Your task to perform on an android device: turn notification dots off Image 0: 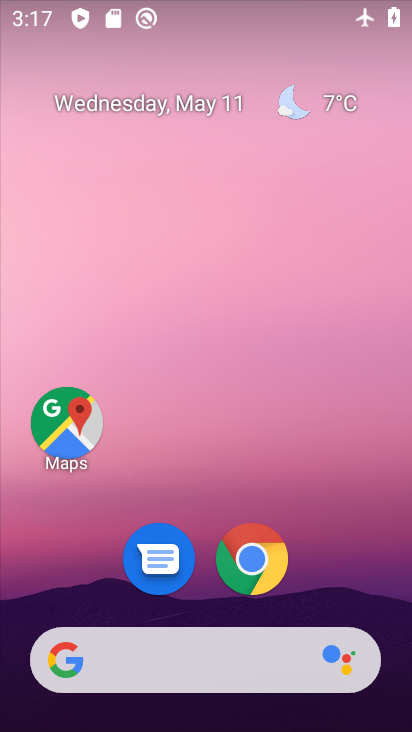
Step 0: drag from (196, 627) to (196, 151)
Your task to perform on an android device: turn notification dots off Image 1: 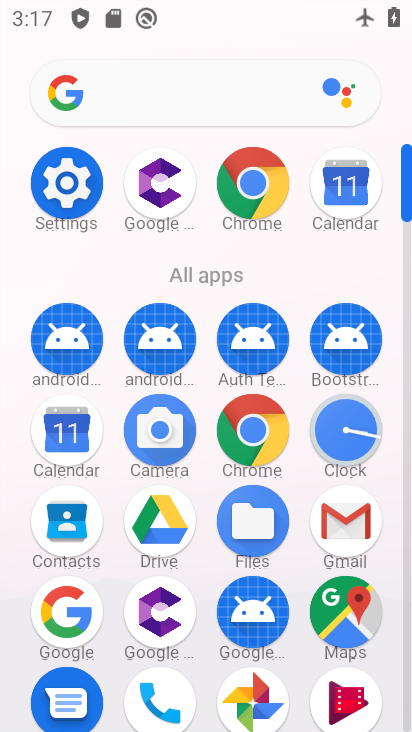
Step 1: click (83, 180)
Your task to perform on an android device: turn notification dots off Image 2: 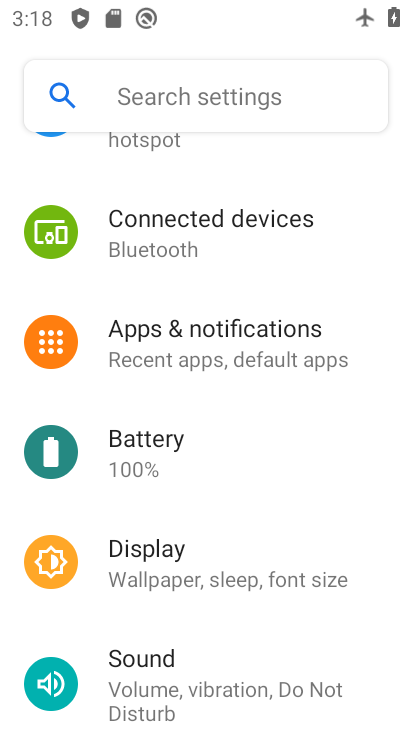
Step 2: click (157, 339)
Your task to perform on an android device: turn notification dots off Image 3: 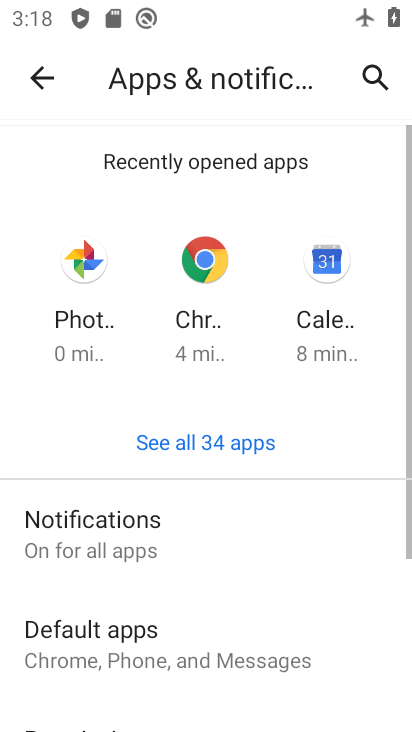
Step 3: click (119, 541)
Your task to perform on an android device: turn notification dots off Image 4: 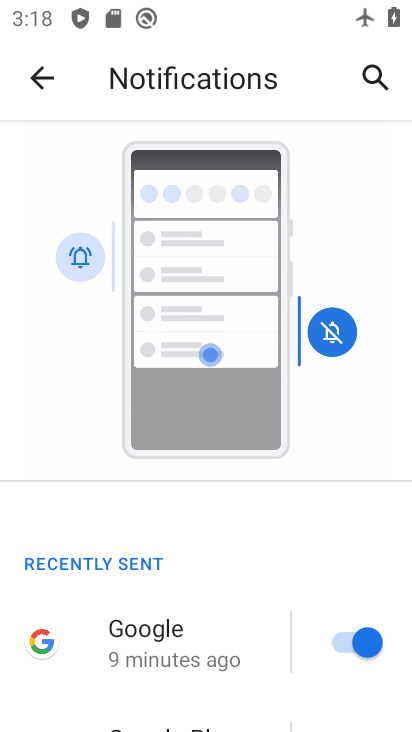
Step 4: drag from (194, 650) to (216, 192)
Your task to perform on an android device: turn notification dots off Image 5: 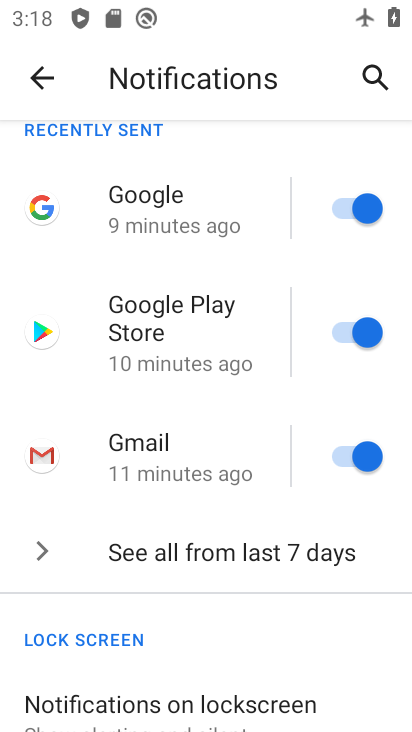
Step 5: drag from (246, 649) to (271, 346)
Your task to perform on an android device: turn notification dots off Image 6: 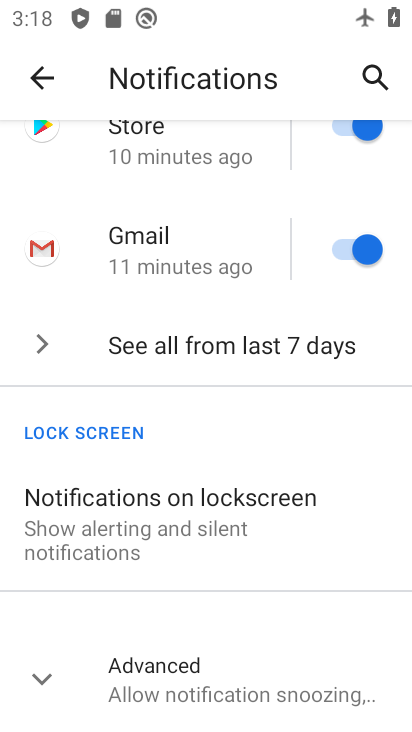
Step 6: click (187, 655)
Your task to perform on an android device: turn notification dots off Image 7: 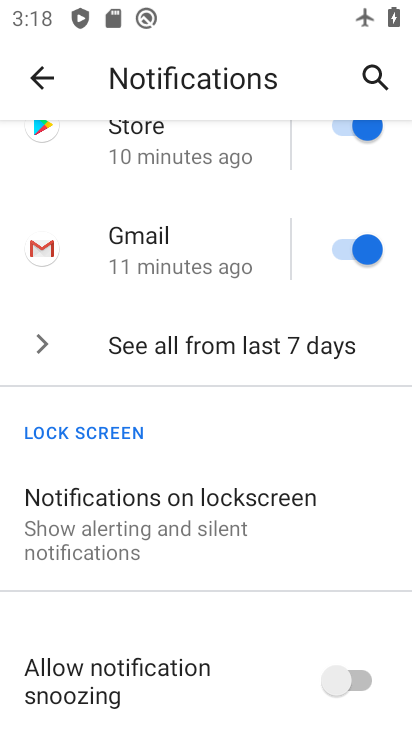
Step 7: drag from (157, 724) to (161, 493)
Your task to perform on an android device: turn notification dots off Image 8: 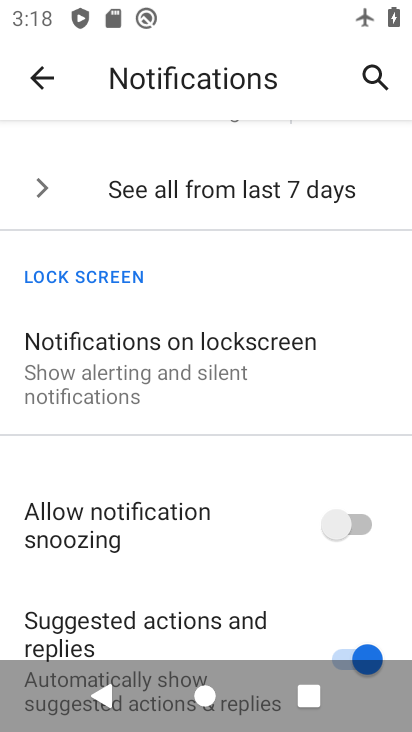
Step 8: drag from (178, 621) to (206, 283)
Your task to perform on an android device: turn notification dots off Image 9: 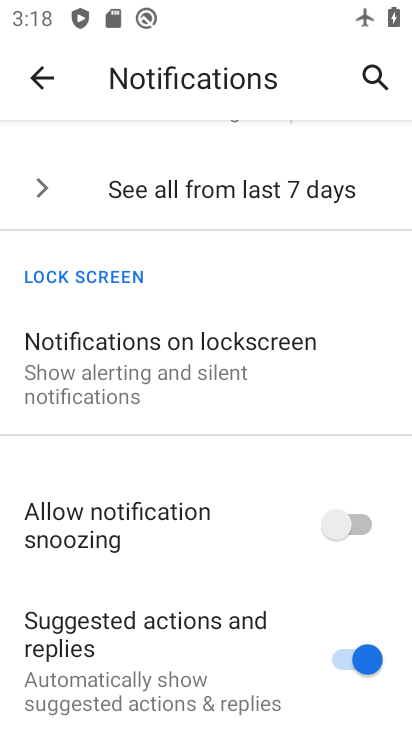
Step 9: drag from (176, 670) to (193, 348)
Your task to perform on an android device: turn notification dots off Image 10: 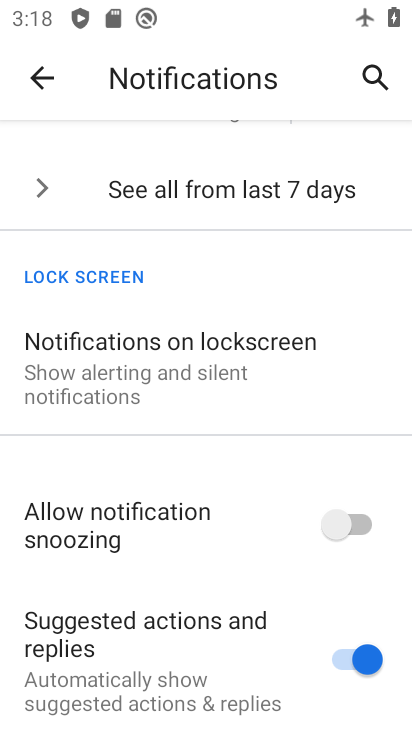
Step 10: drag from (274, 557) to (322, 180)
Your task to perform on an android device: turn notification dots off Image 11: 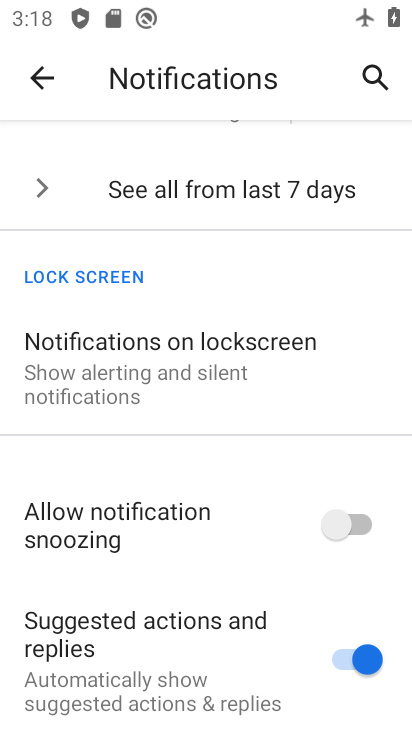
Step 11: drag from (220, 616) to (230, 294)
Your task to perform on an android device: turn notification dots off Image 12: 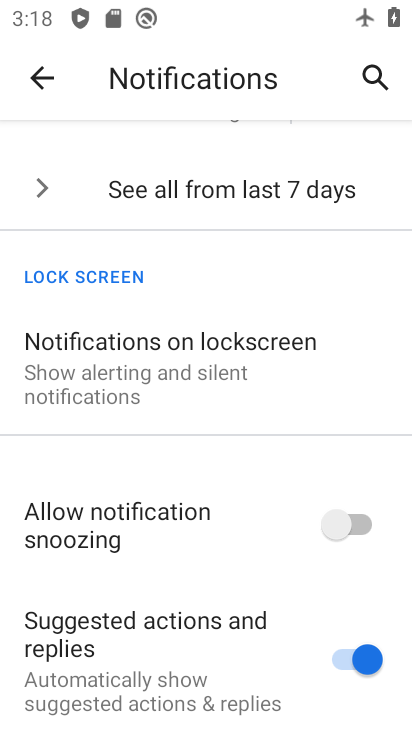
Step 12: drag from (184, 254) to (188, 595)
Your task to perform on an android device: turn notification dots off Image 13: 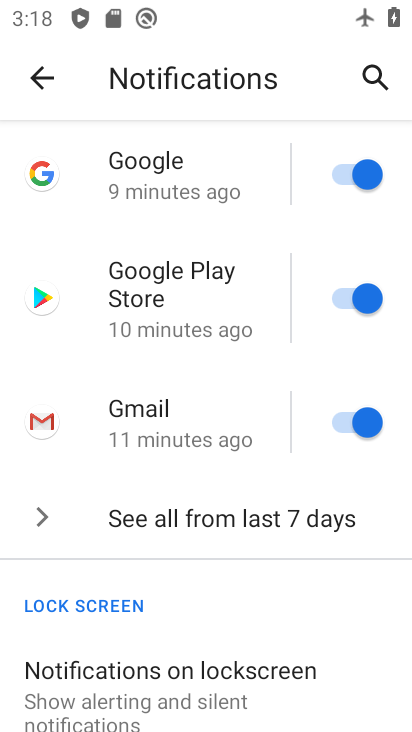
Step 13: drag from (183, 651) to (258, 136)
Your task to perform on an android device: turn notification dots off Image 14: 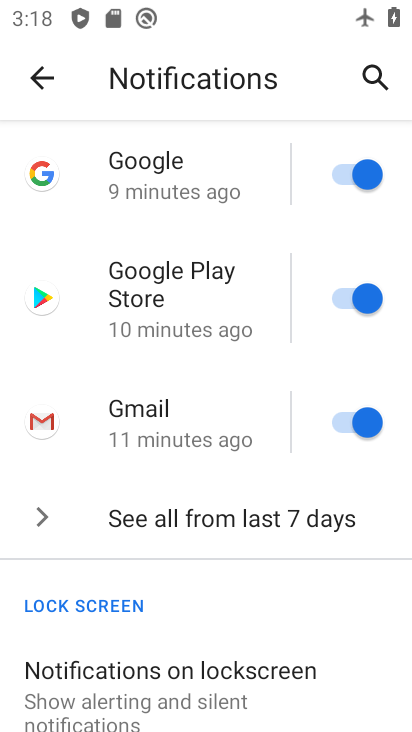
Step 14: drag from (198, 626) to (277, 169)
Your task to perform on an android device: turn notification dots off Image 15: 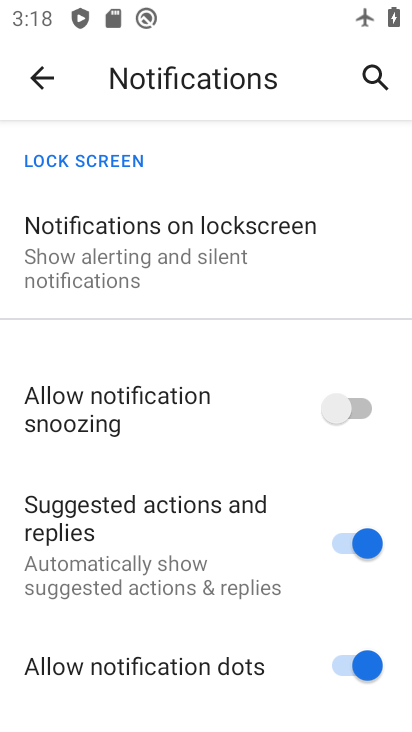
Step 15: click (341, 667)
Your task to perform on an android device: turn notification dots off Image 16: 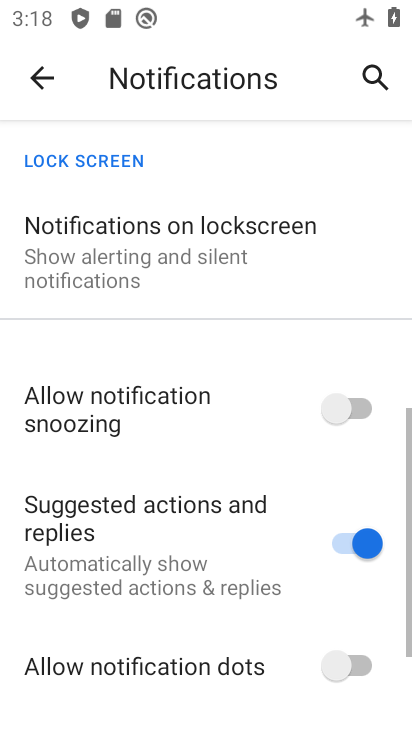
Step 16: task complete